Your task to perform on an android device: Toggle the flashlight Image 0: 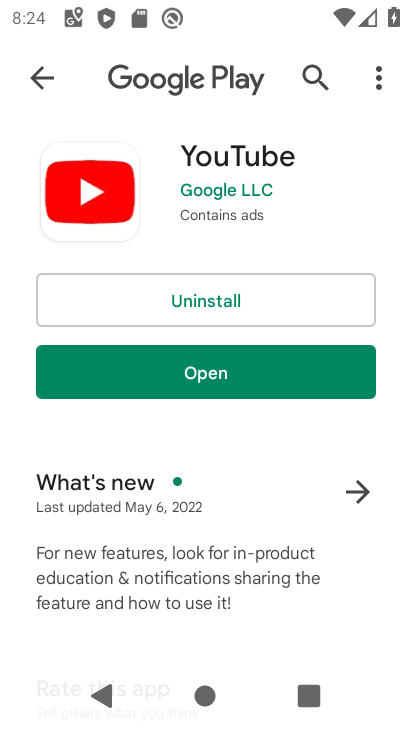
Step 0: press home button
Your task to perform on an android device: Toggle the flashlight Image 1: 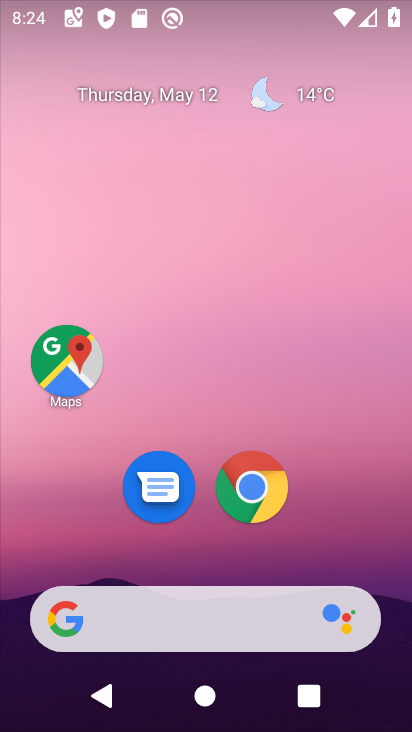
Step 1: task complete